Your task to perform on an android device: find which apps use the phone's location Image 0: 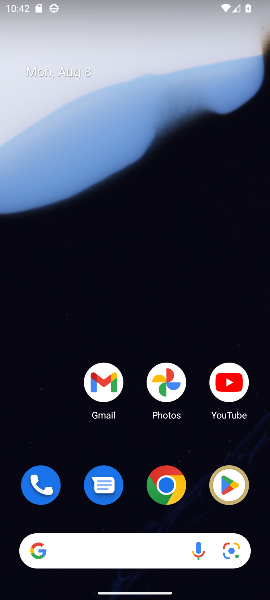
Step 0: drag from (140, 503) to (176, 67)
Your task to perform on an android device: find which apps use the phone's location Image 1: 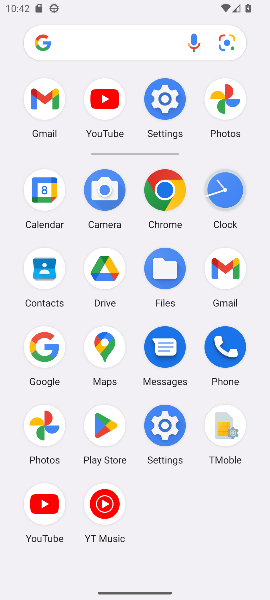
Step 1: click (225, 351)
Your task to perform on an android device: find which apps use the phone's location Image 2: 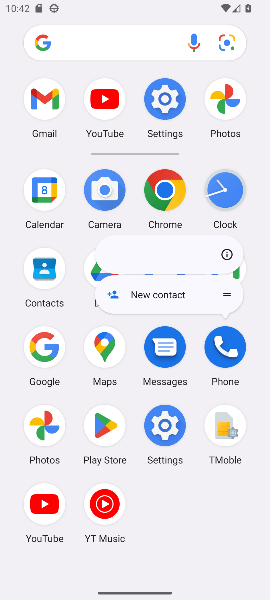
Step 2: click (229, 254)
Your task to perform on an android device: find which apps use the phone's location Image 3: 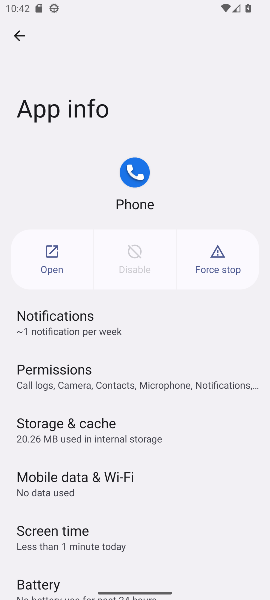
Step 3: click (53, 378)
Your task to perform on an android device: find which apps use the phone's location Image 4: 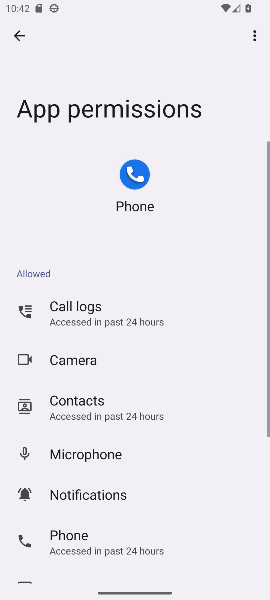
Step 4: drag from (128, 504) to (173, 220)
Your task to perform on an android device: find which apps use the phone's location Image 5: 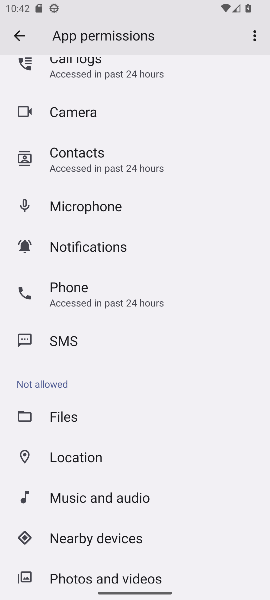
Step 5: click (96, 293)
Your task to perform on an android device: find which apps use the phone's location Image 6: 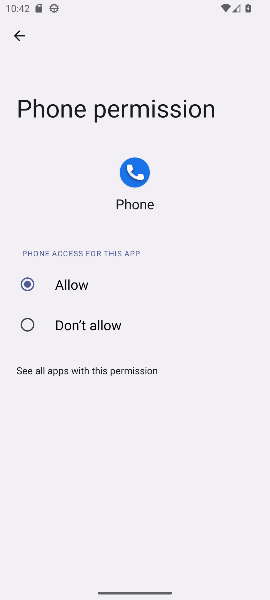
Step 6: click (18, 39)
Your task to perform on an android device: find which apps use the phone's location Image 7: 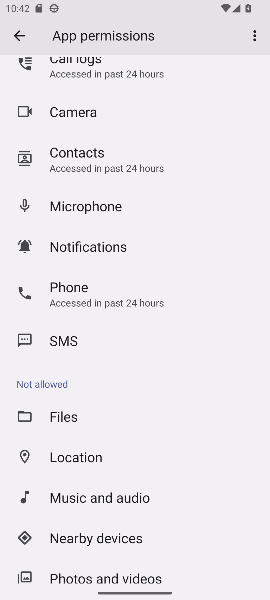
Step 7: drag from (77, 84) to (81, 17)
Your task to perform on an android device: find which apps use the phone's location Image 8: 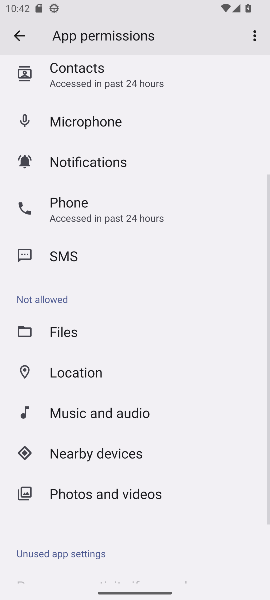
Step 8: click (53, 362)
Your task to perform on an android device: find which apps use the phone's location Image 9: 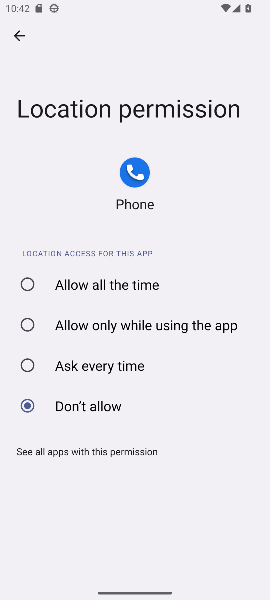
Step 9: task complete